Your task to perform on an android device: turn off airplane mode Image 0: 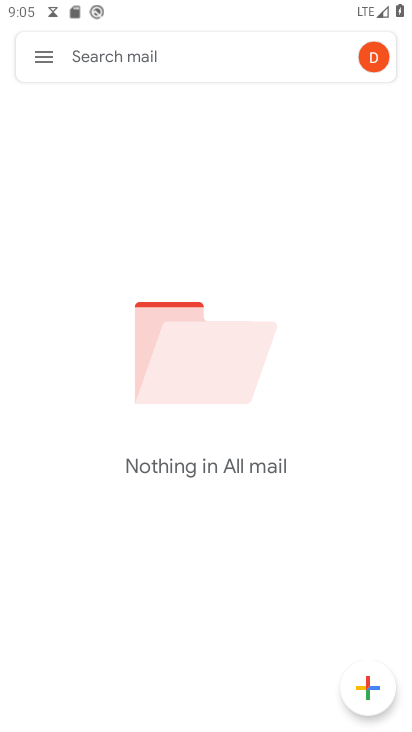
Step 0: press home button
Your task to perform on an android device: turn off airplane mode Image 1: 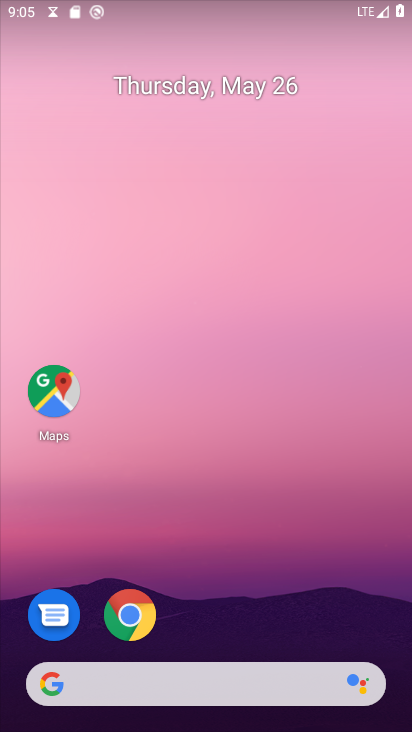
Step 1: drag from (251, 624) to (264, 252)
Your task to perform on an android device: turn off airplane mode Image 2: 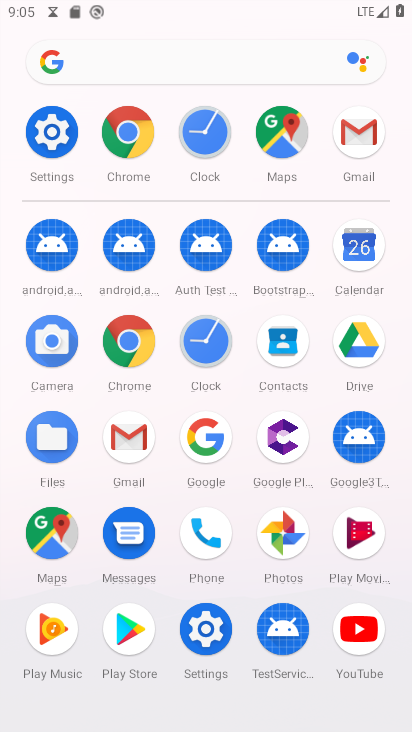
Step 2: click (51, 128)
Your task to perform on an android device: turn off airplane mode Image 3: 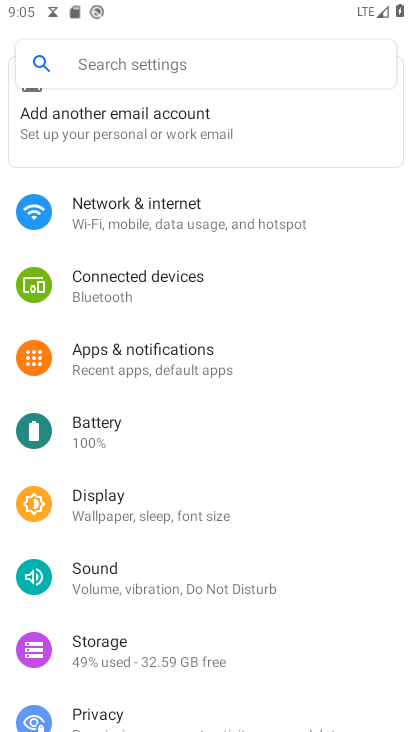
Step 3: click (172, 201)
Your task to perform on an android device: turn off airplane mode Image 4: 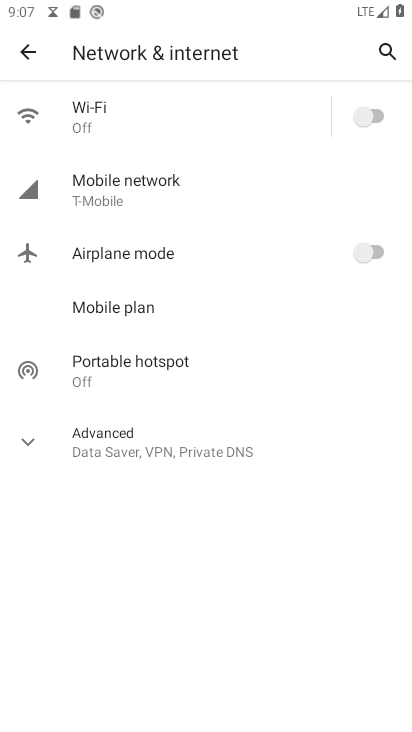
Step 4: task complete